Your task to perform on an android device: manage bookmarks in the chrome app Image 0: 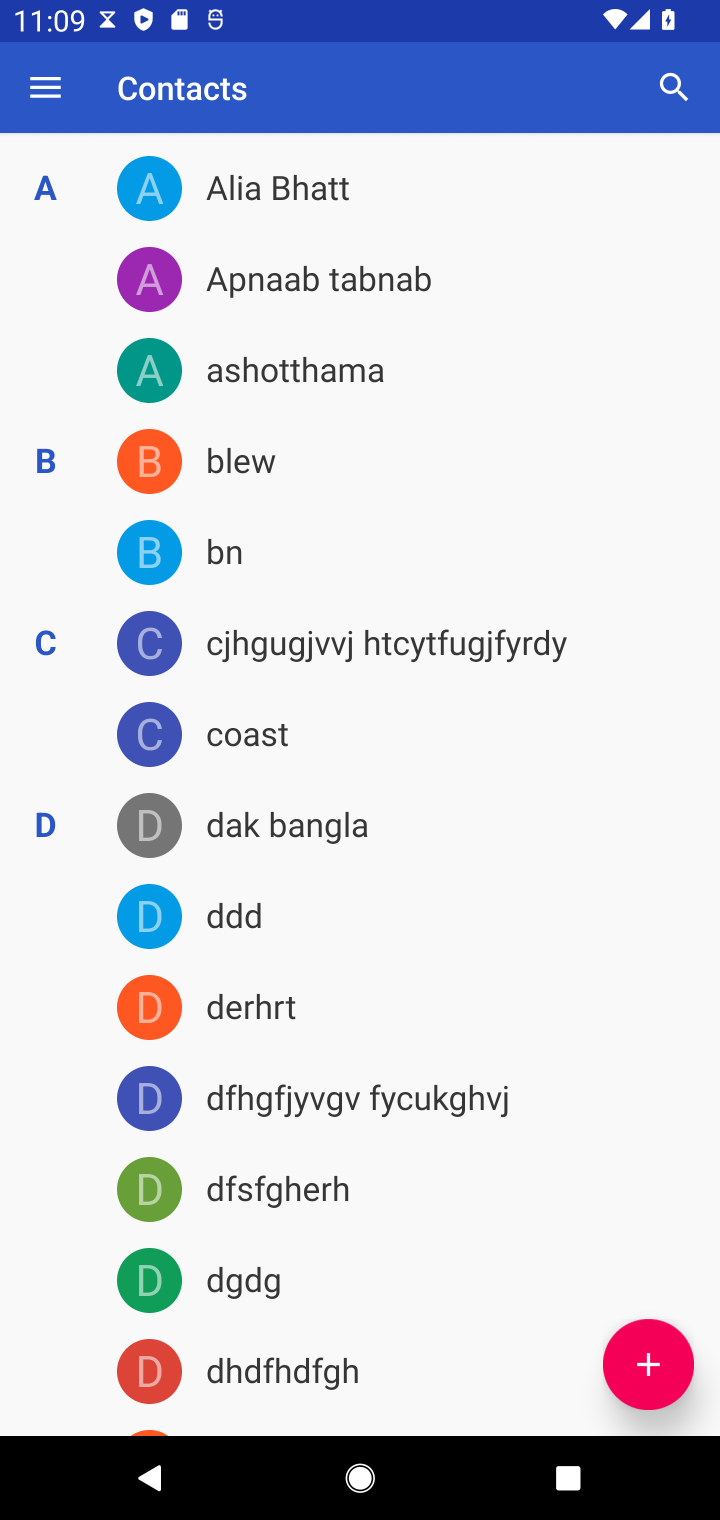
Step 0: press back button
Your task to perform on an android device: manage bookmarks in the chrome app Image 1: 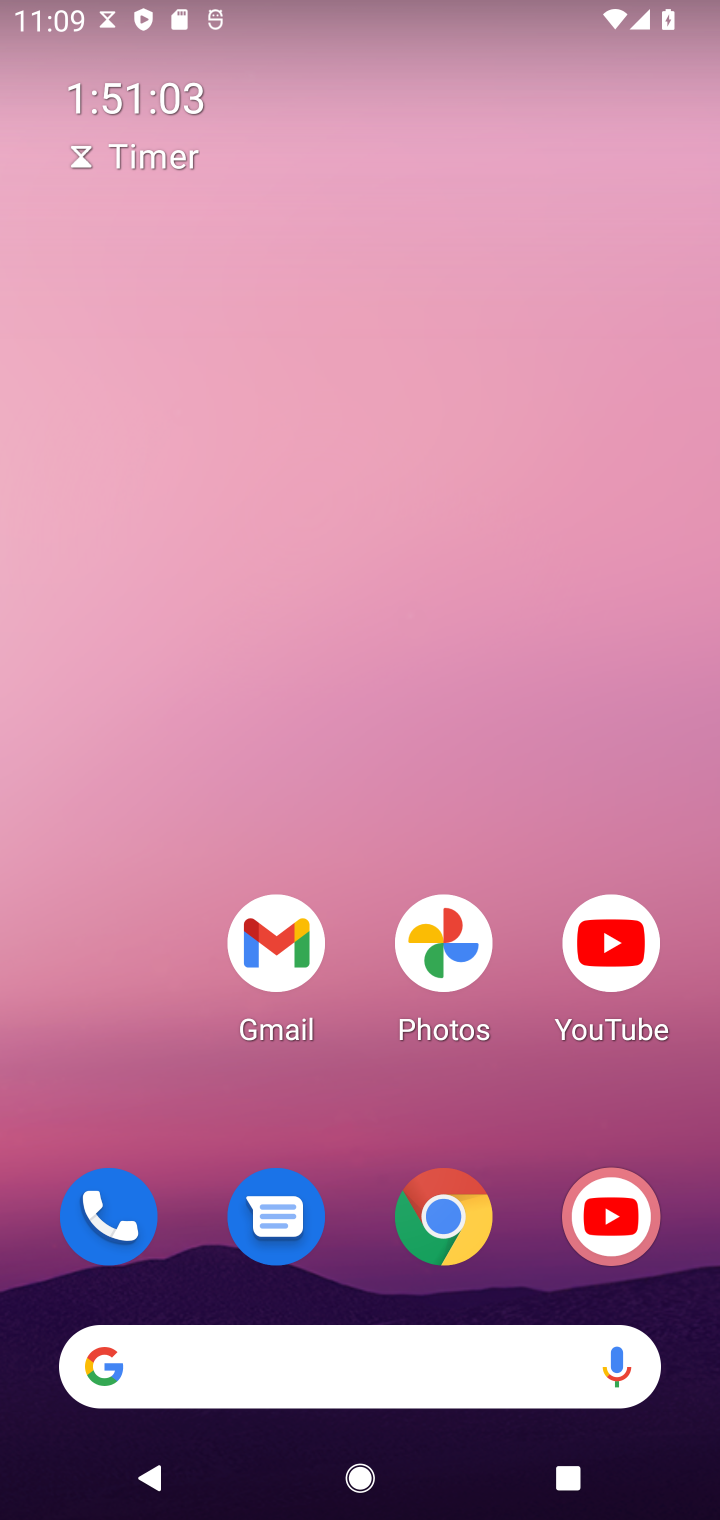
Step 1: click (430, 1241)
Your task to perform on an android device: manage bookmarks in the chrome app Image 2: 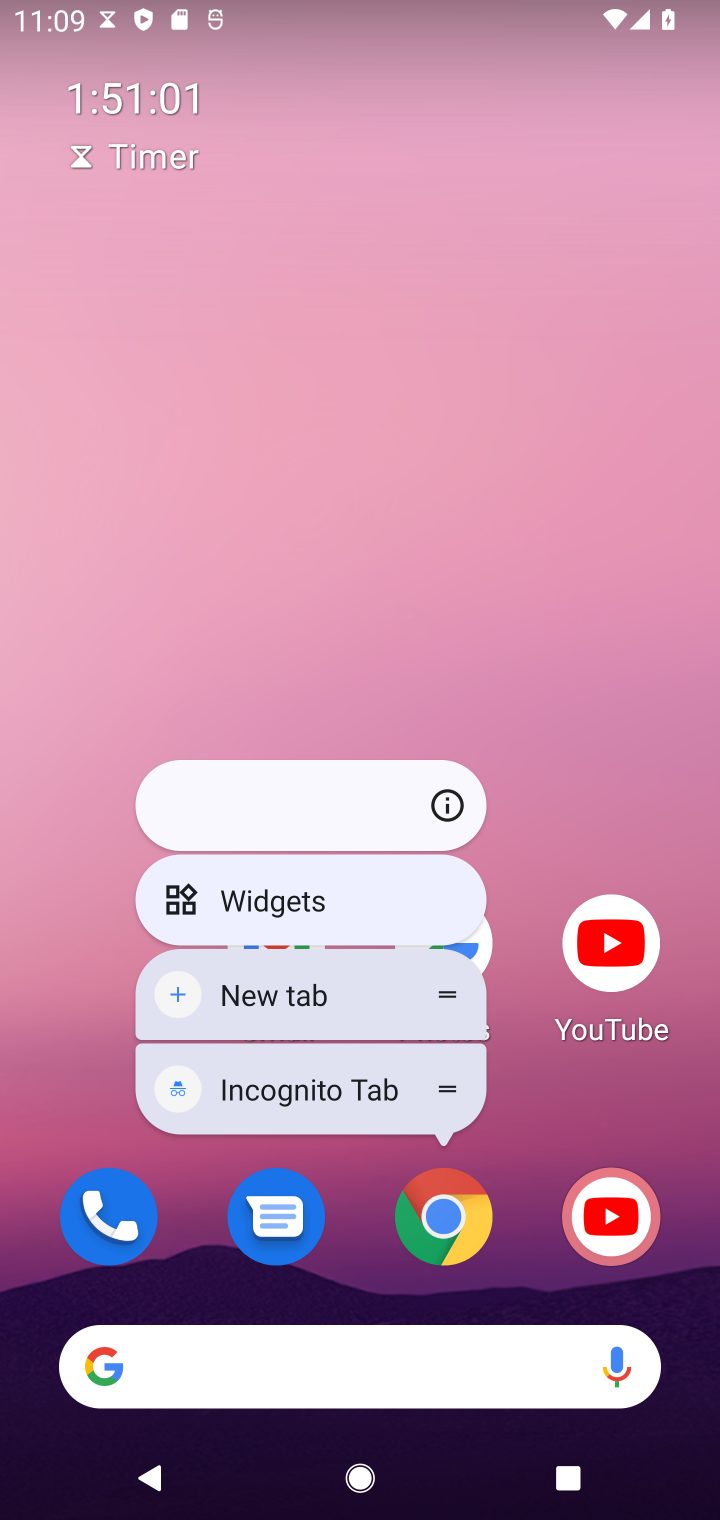
Step 2: click (436, 1221)
Your task to perform on an android device: manage bookmarks in the chrome app Image 3: 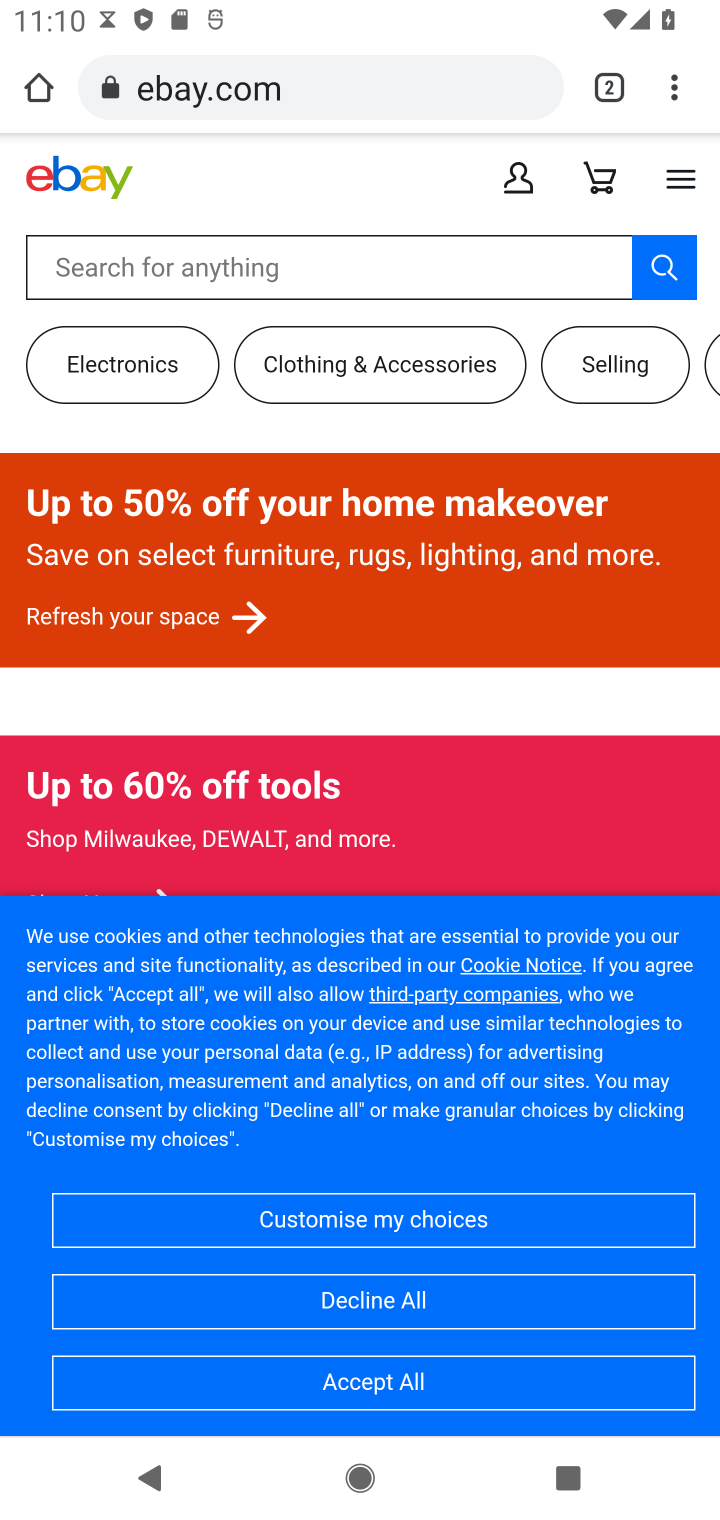
Step 3: drag from (664, 97) to (428, 627)
Your task to perform on an android device: manage bookmarks in the chrome app Image 4: 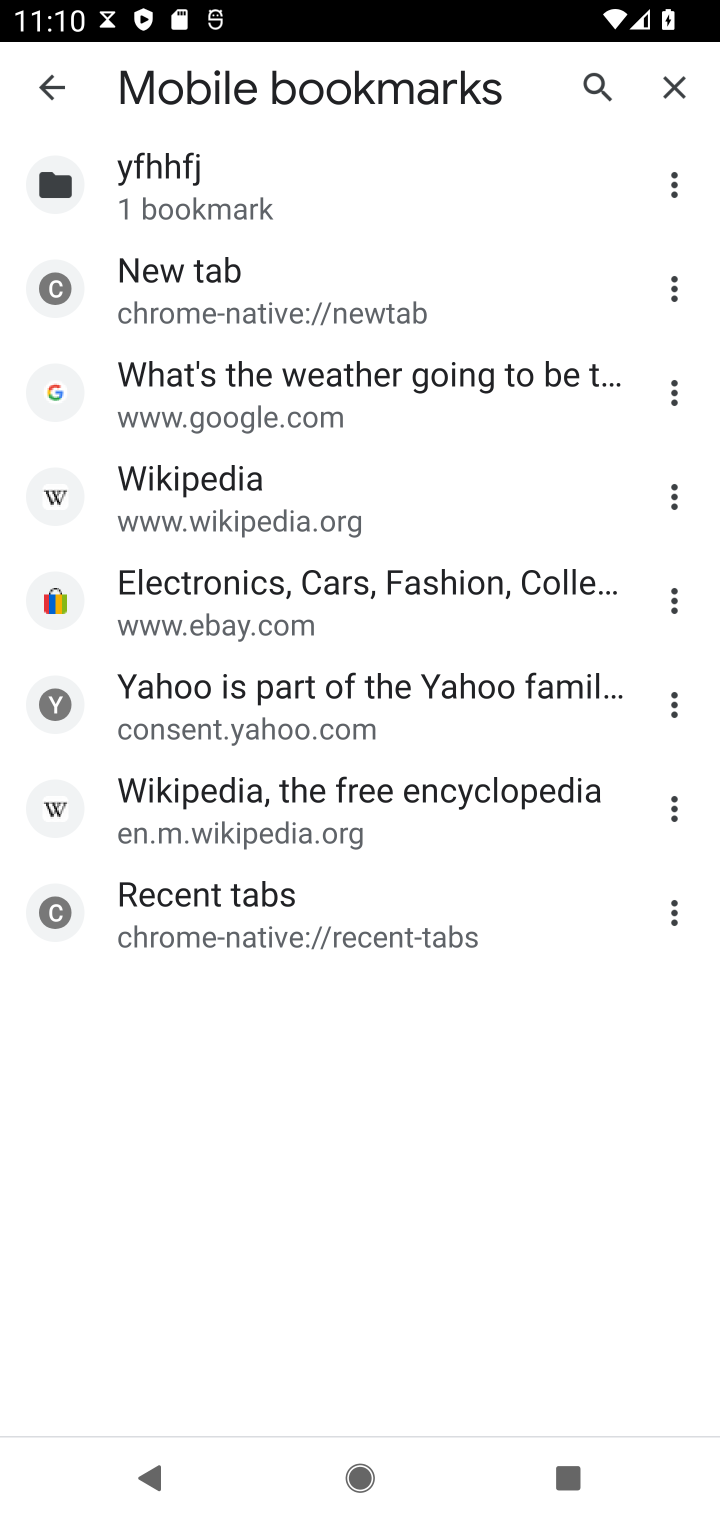
Step 4: click (666, 603)
Your task to perform on an android device: manage bookmarks in the chrome app Image 5: 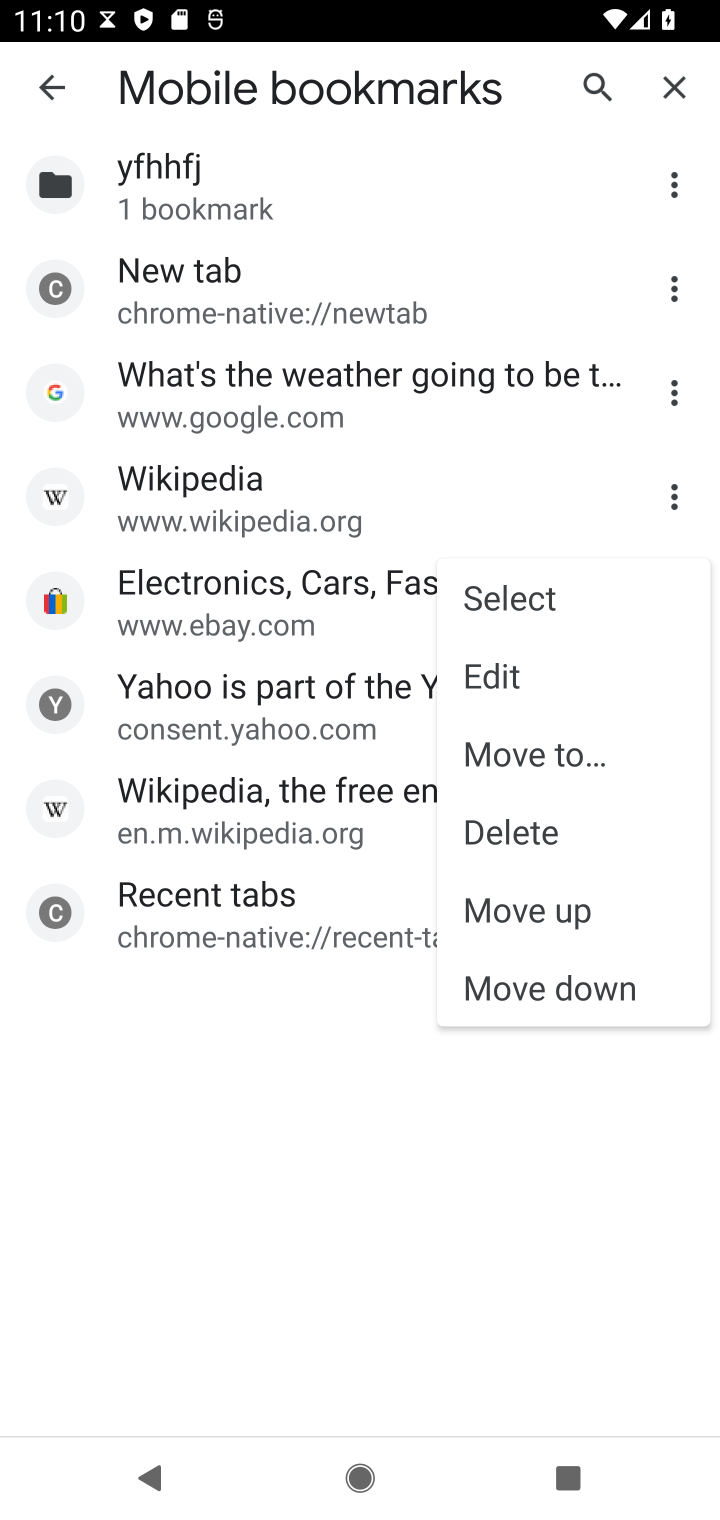
Step 5: click (544, 814)
Your task to perform on an android device: manage bookmarks in the chrome app Image 6: 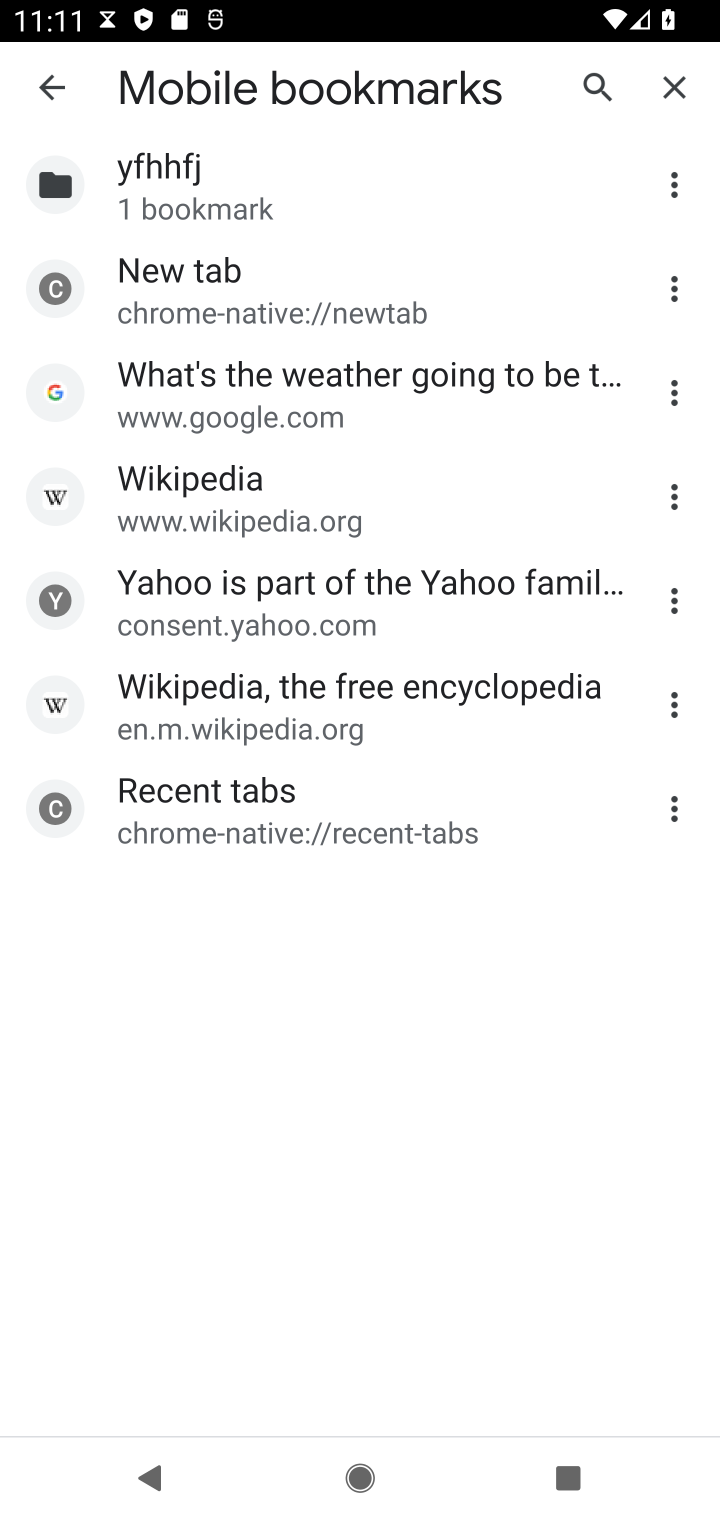
Step 6: click (671, 389)
Your task to perform on an android device: manage bookmarks in the chrome app Image 7: 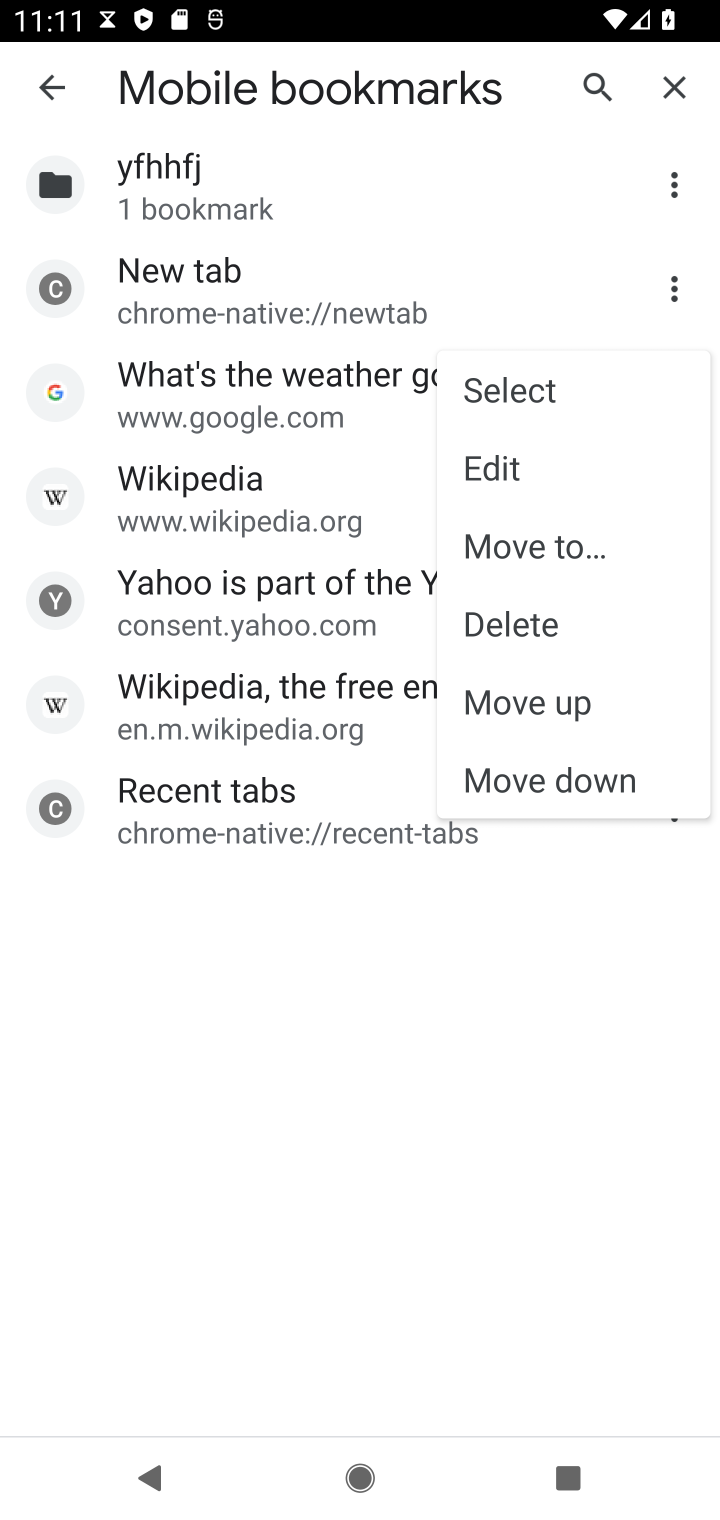
Step 7: click (558, 626)
Your task to perform on an android device: manage bookmarks in the chrome app Image 8: 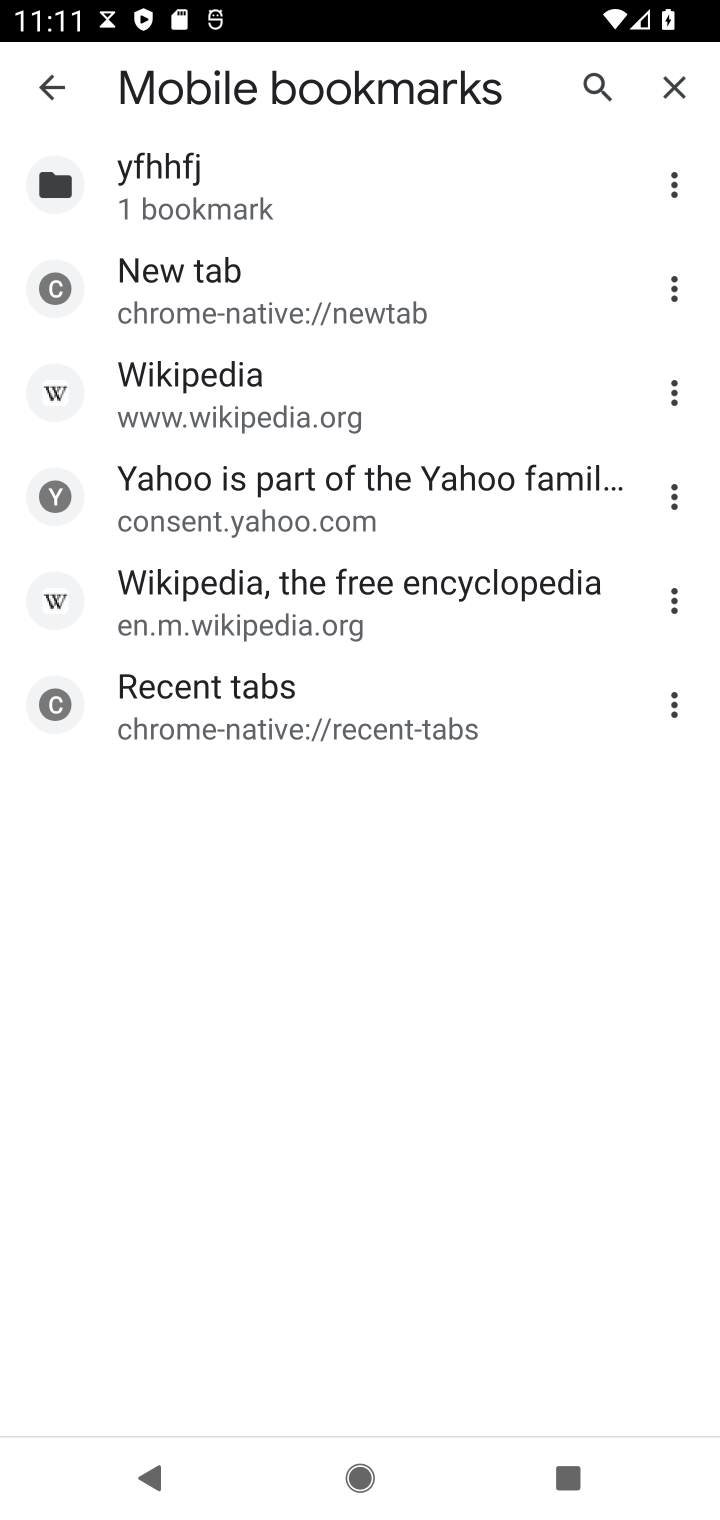
Step 8: task complete